Your task to perform on an android device: make emails show in primary in the gmail app Image 0: 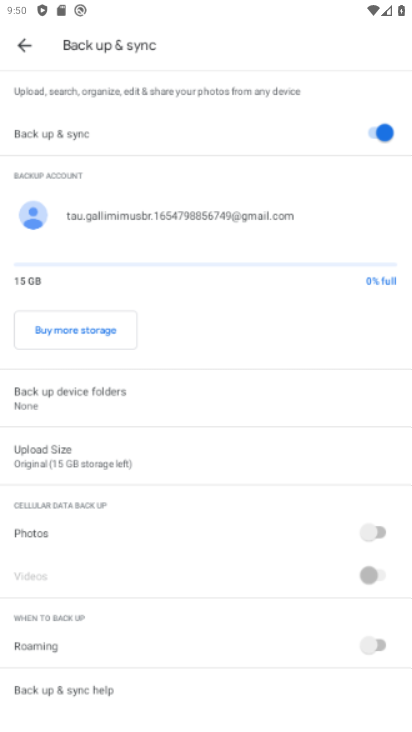
Step 0: press home button
Your task to perform on an android device: make emails show in primary in the gmail app Image 1: 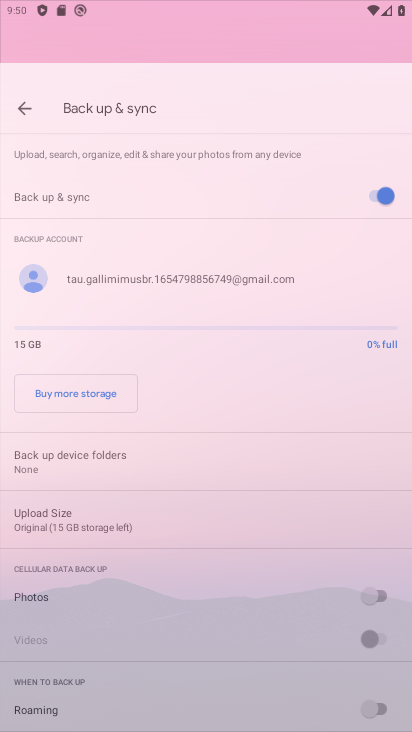
Step 1: drag from (272, 662) to (311, 76)
Your task to perform on an android device: make emails show in primary in the gmail app Image 2: 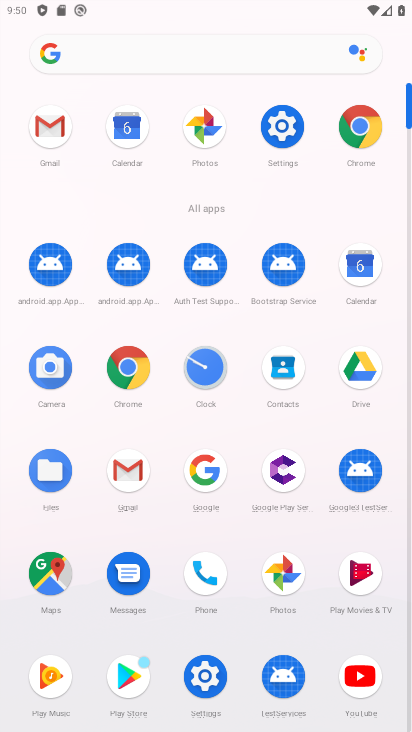
Step 2: click (54, 119)
Your task to perform on an android device: make emails show in primary in the gmail app Image 3: 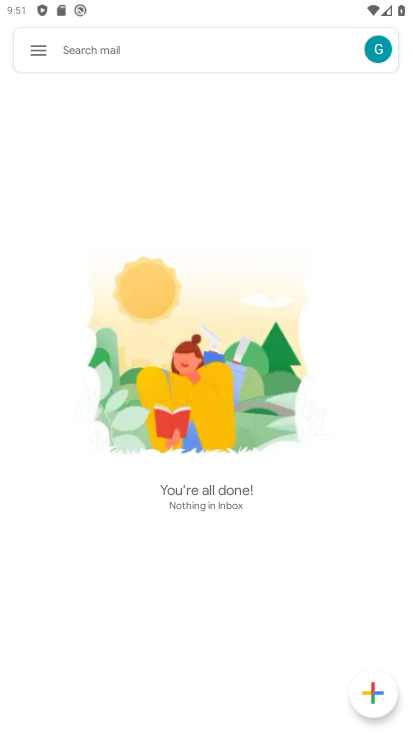
Step 3: task complete